Your task to perform on an android device: turn on wifi Image 0: 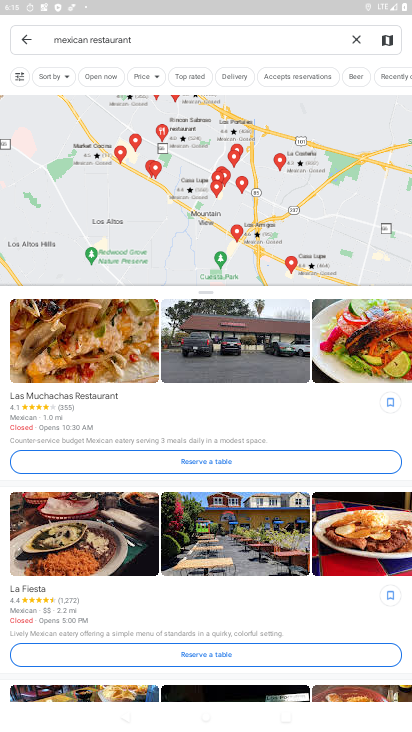
Step 0: press home button
Your task to perform on an android device: turn on wifi Image 1: 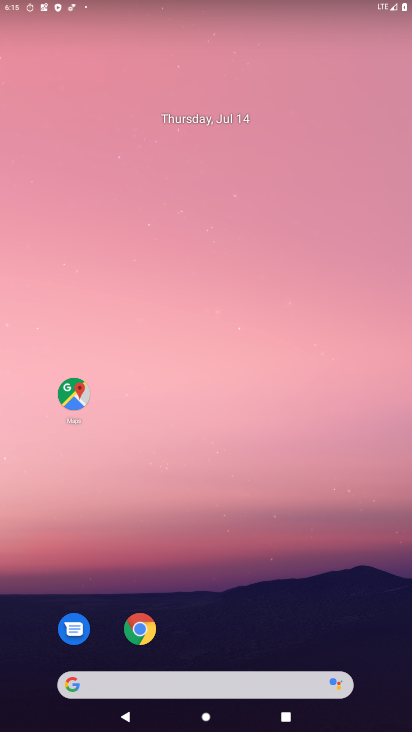
Step 1: drag from (140, 660) to (252, 53)
Your task to perform on an android device: turn on wifi Image 2: 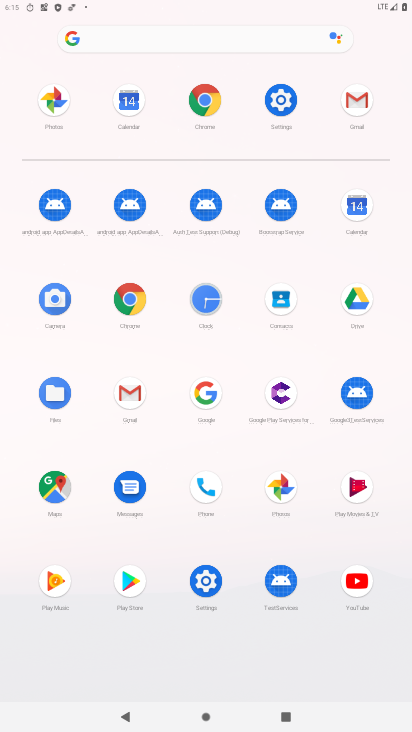
Step 2: click (279, 82)
Your task to perform on an android device: turn on wifi Image 3: 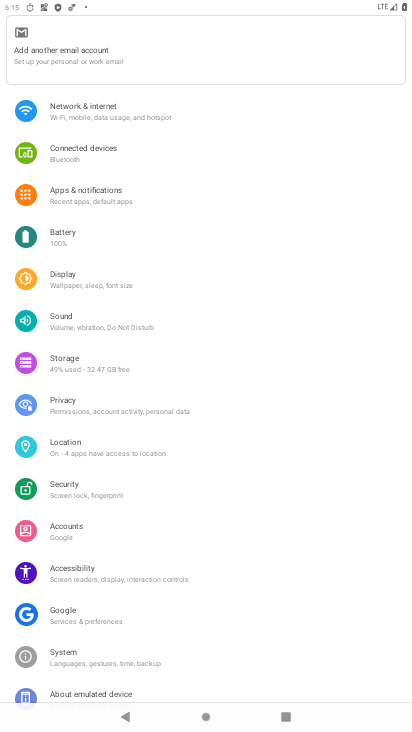
Step 3: click (152, 118)
Your task to perform on an android device: turn on wifi Image 4: 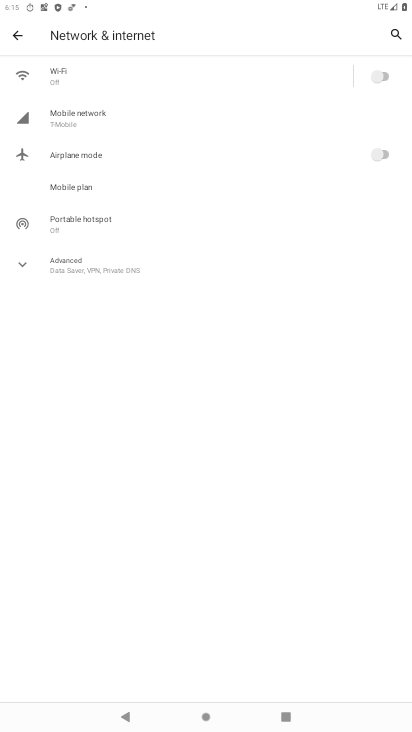
Step 4: click (389, 73)
Your task to perform on an android device: turn on wifi Image 5: 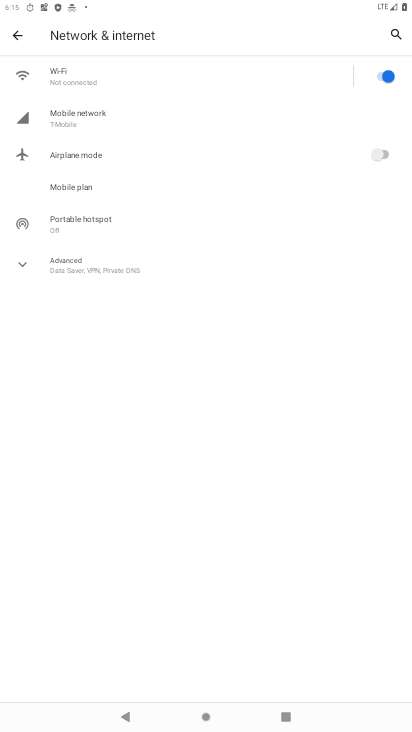
Step 5: task complete